Your task to perform on an android device: Go to calendar. Show me events next week Image 0: 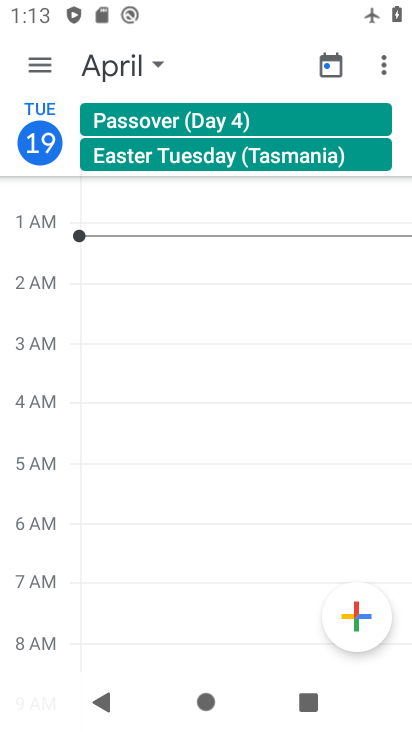
Step 0: click (156, 64)
Your task to perform on an android device: Go to calendar. Show me events next week Image 1: 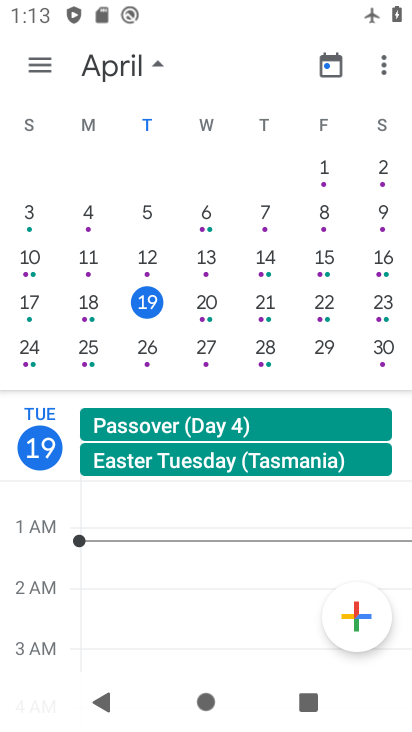
Step 1: click (93, 352)
Your task to perform on an android device: Go to calendar. Show me events next week Image 2: 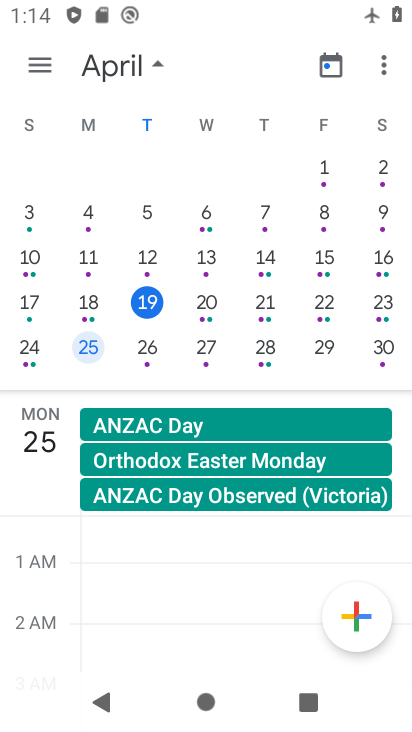
Step 2: click (41, 72)
Your task to perform on an android device: Go to calendar. Show me events next week Image 3: 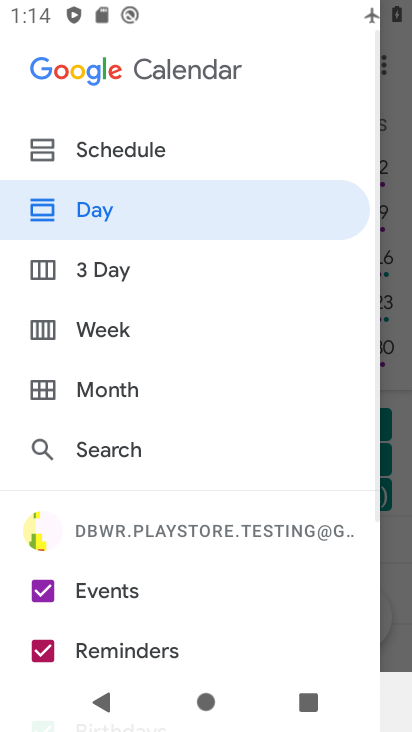
Step 3: click (103, 331)
Your task to perform on an android device: Go to calendar. Show me events next week Image 4: 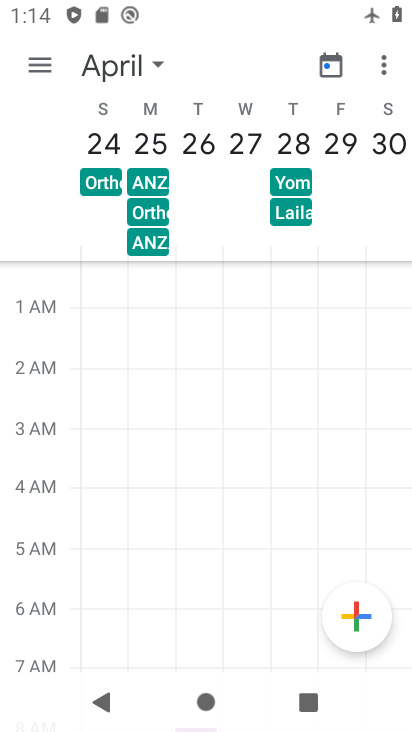
Step 4: task complete